Your task to perform on an android device: open sync settings in chrome Image 0: 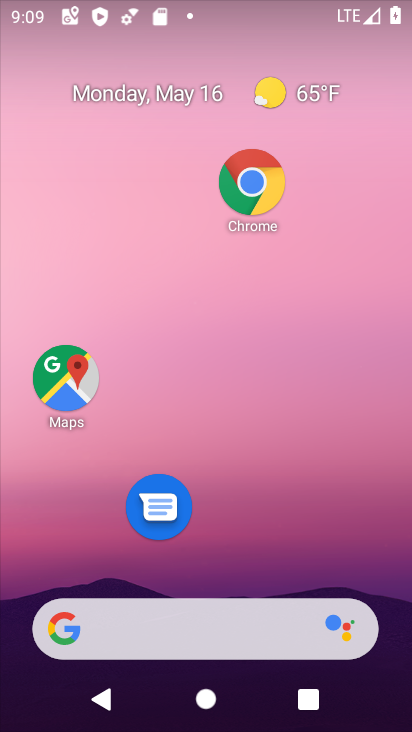
Step 0: drag from (206, 577) to (187, 34)
Your task to perform on an android device: open sync settings in chrome Image 1: 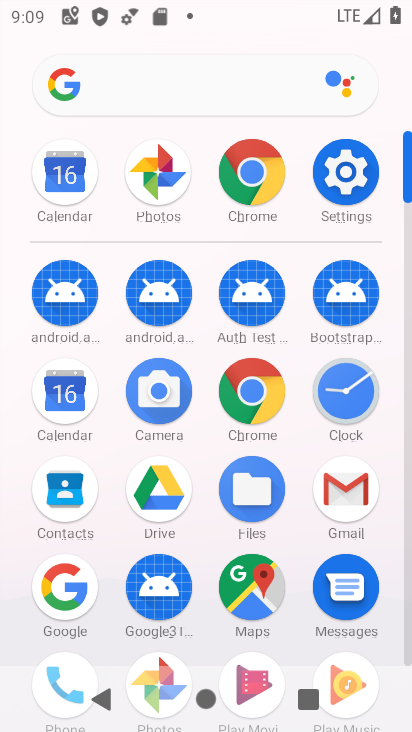
Step 1: click (243, 403)
Your task to perform on an android device: open sync settings in chrome Image 2: 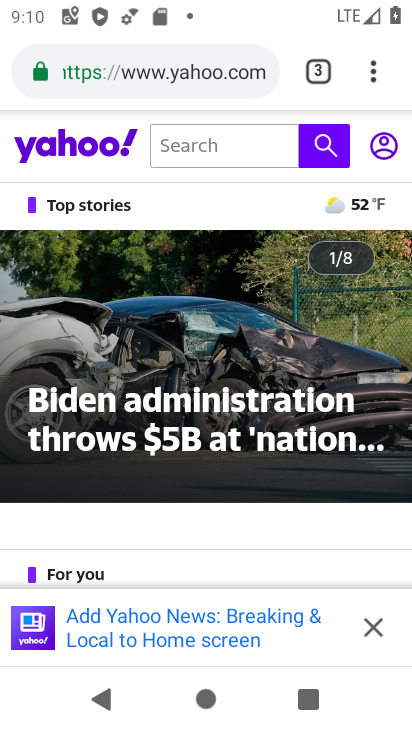
Step 2: click (370, 72)
Your task to perform on an android device: open sync settings in chrome Image 3: 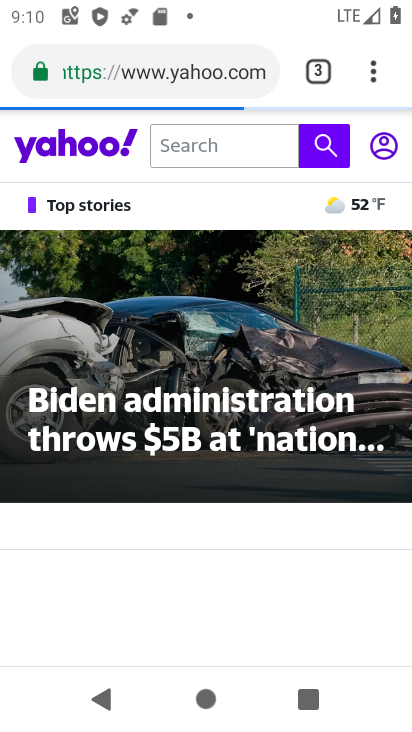
Step 3: drag from (369, 72) to (95, 510)
Your task to perform on an android device: open sync settings in chrome Image 4: 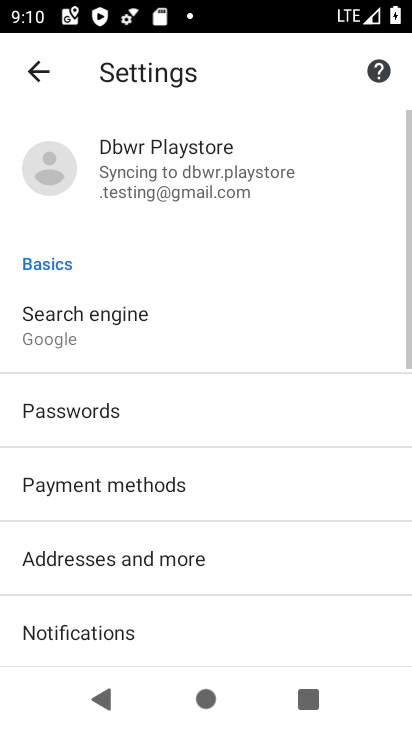
Step 4: drag from (100, 508) to (135, 583)
Your task to perform on an android device: open sync settings in chrome Image 5: 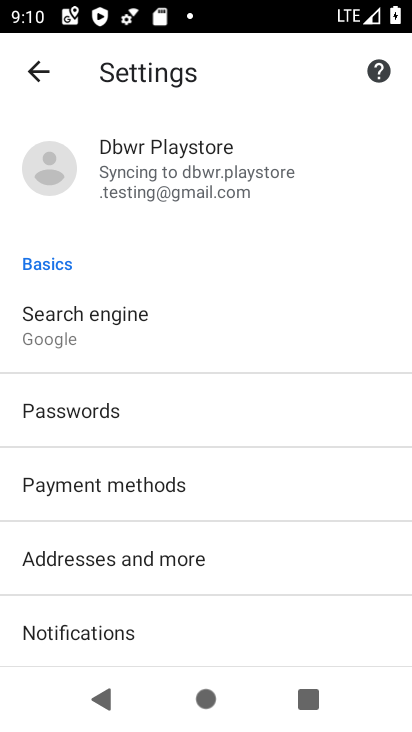
Step 5: click (125, 206)
Your task to perform on an android device: open sync settings in chrome Image 6: 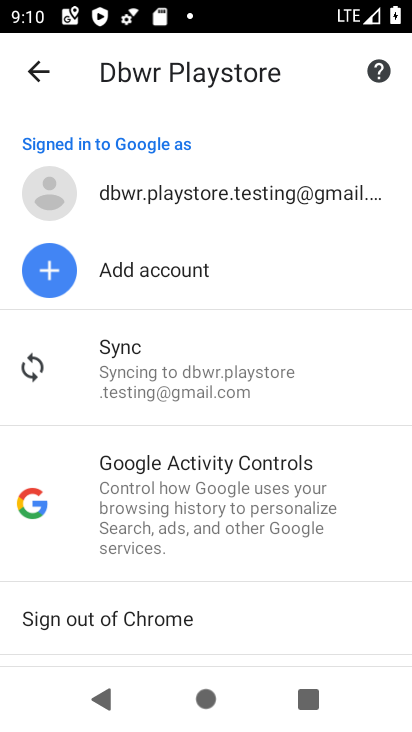
Step 6: click (139, 396)
Your task to perform on an android device: open sync settings in chrome Image 7: 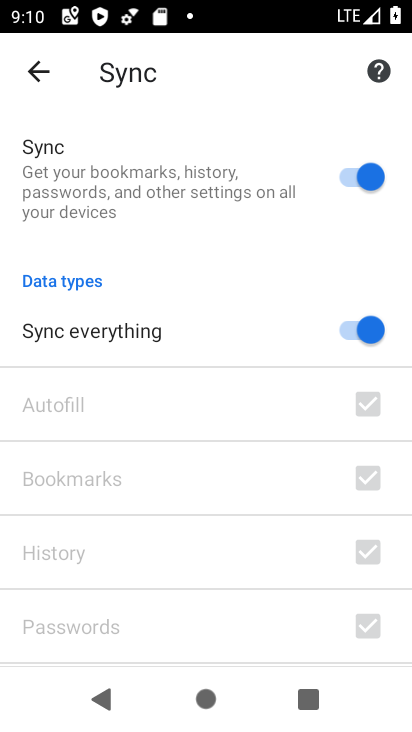
Step 7: task complete